Your task to perform on an android device: Open Google Maps Image 0: 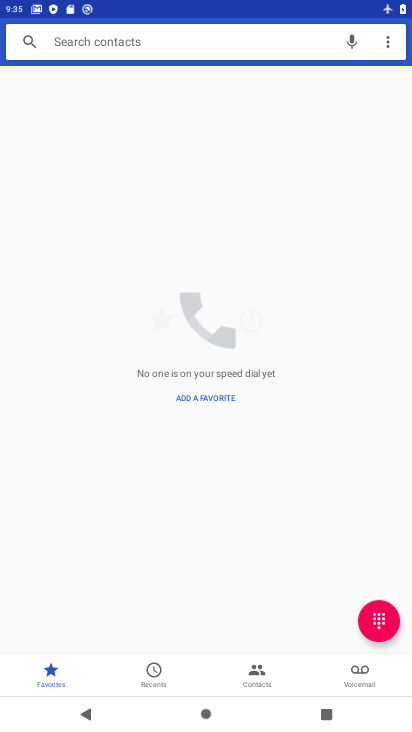
Step 0: press home button
Your task to perform on an android device: Open Google Maps Image 1: 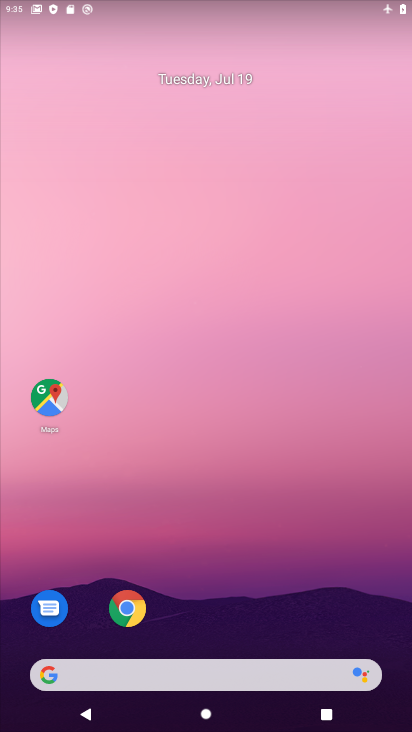
Step 1: drag from (254, 626) to (276, 103)
Your task to perform on an android device: Open Google Maps Image 2: 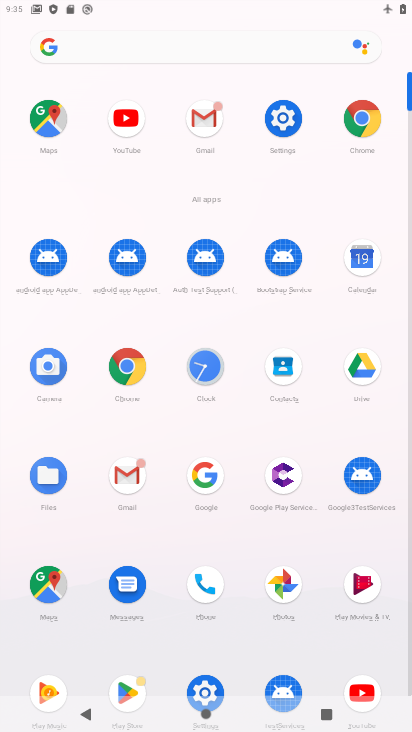
Step 2: click (54, 122)
Your task to perform on an android device: Open Google Maps Image 3: 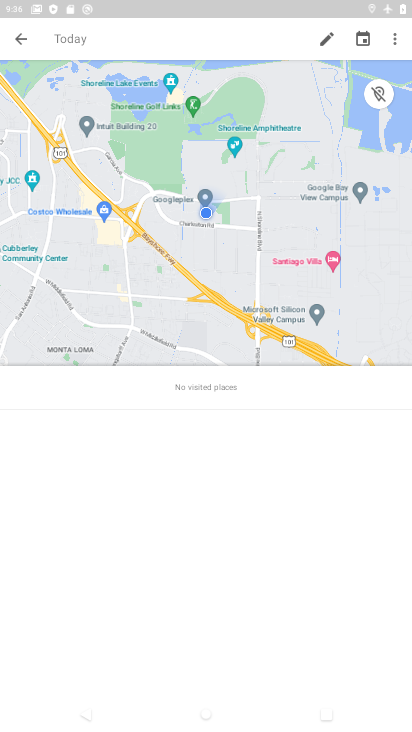
Step 3: task complete